Your task to perform on an android device: Go to Google maps Image 0: 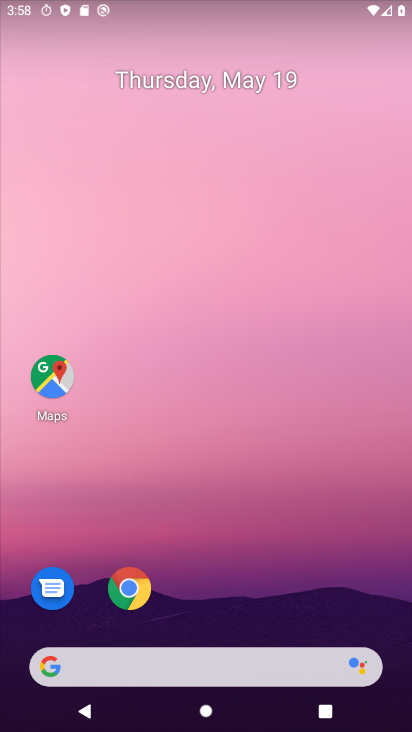
Step 0: click (49, 392)
Your task to perform on an android device: Go to Google maps Image 1: 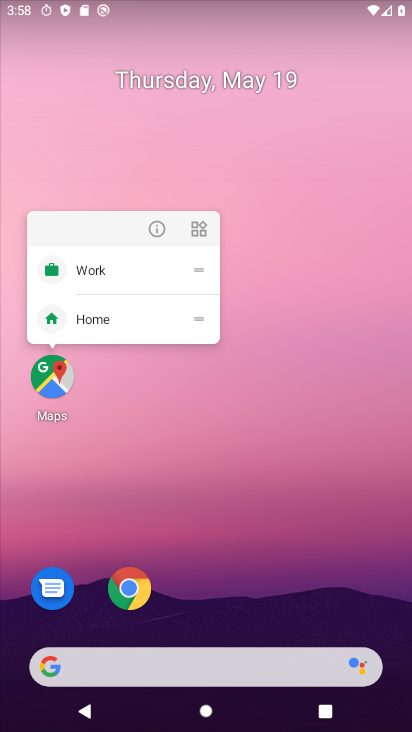
Step 1: click (56, 380)
Your task to perform on an android device: Go to Google maps Image 2: 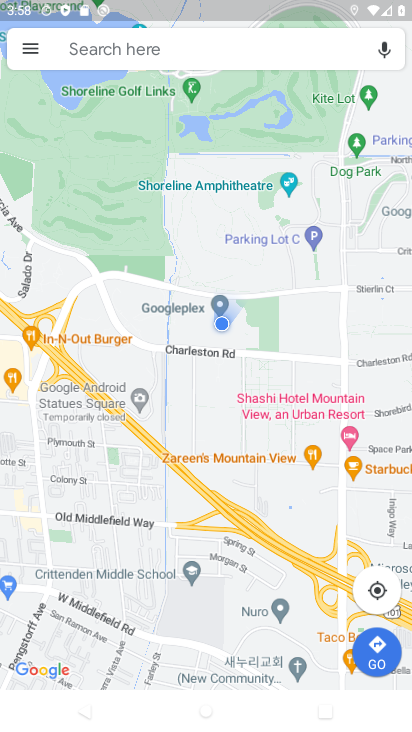
Step 2: task complete